Your task to perform on an android device: Go to Yahoo.com Image 0: 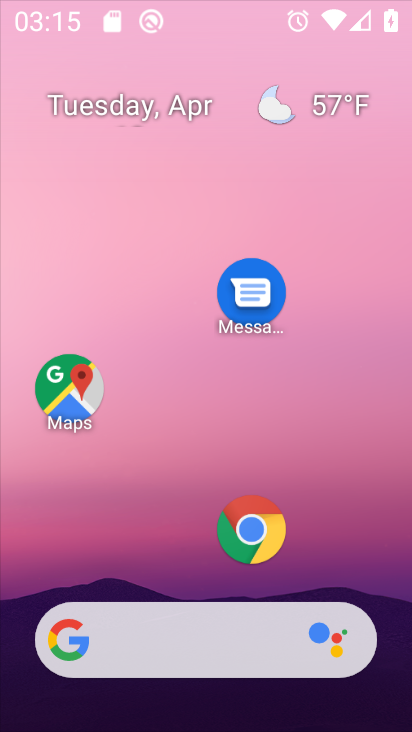
Step 0: click (67, 384)
Your task to perform on an android device: Go to Yahoo.com Image 1: 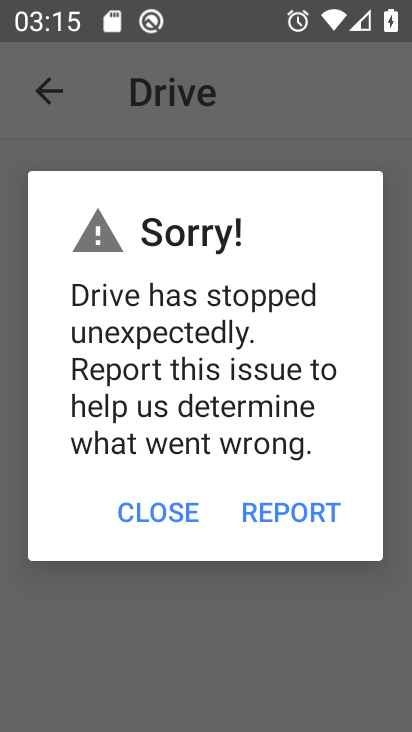
Step 1: press home button
Your task to perform on an android device: Go to Yahoo.com Image 2: 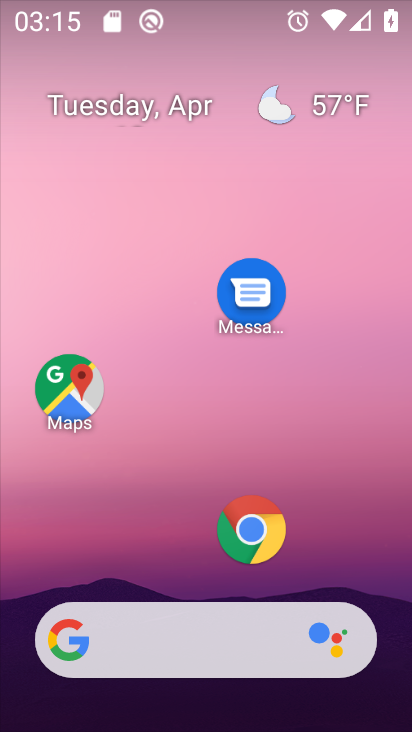
Step 2: click (254, 534)
Your task to perform on an android device: Go to Yahoo.com Image 3: 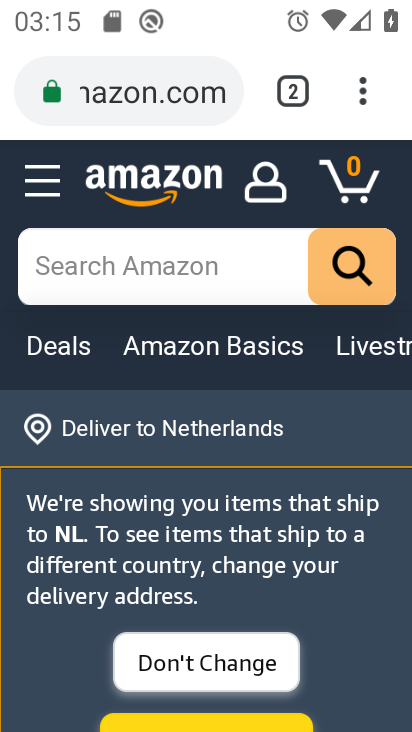
Step 3: press back button
Your task to perform on an android device: Go to Yahoo.com Image 4: 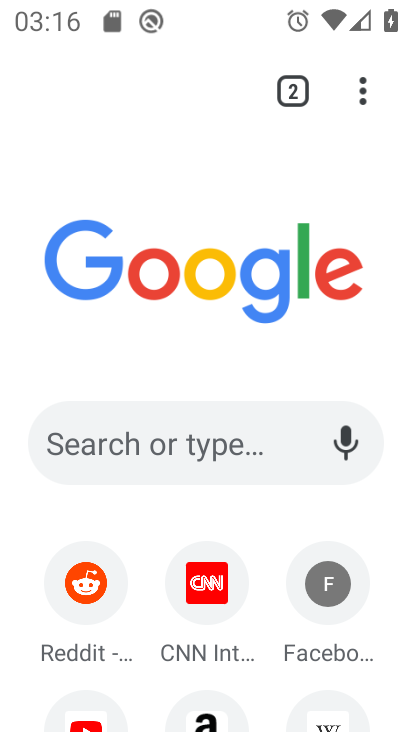
Step 4: drag from (265, 599) to (258, 268)
Your task to perform on an android device: Go to Yahoo.com Image 5: 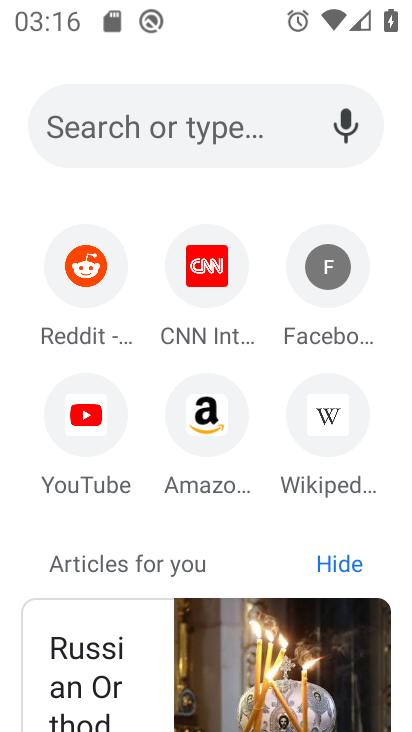
Step 5: click (169, 132)
Your task to perform on an android device: Go to Yahoo.com Image 6: 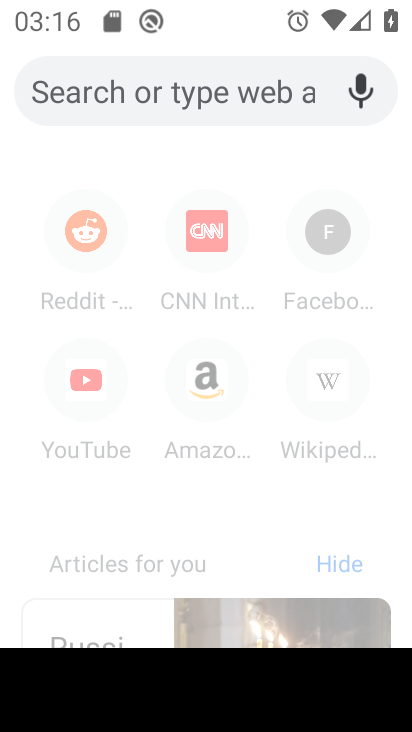
Step 6: type "yahoo.com"
Your task to perform on an android device: Go to Yahoo.com Image 7: 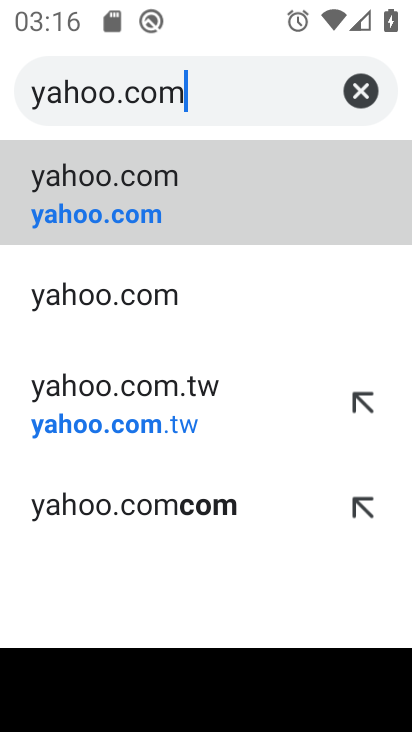
Step 7: click (139, 194)
Your task to perform on an android device: Go to Yahoo.com Image 8: 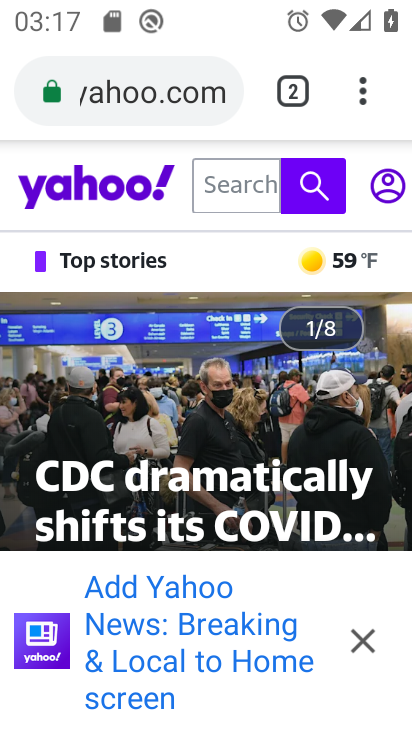
Step 8: task complete